Your task to perform on an android device: Search for seafood restaurants on Google Maps Image 0: 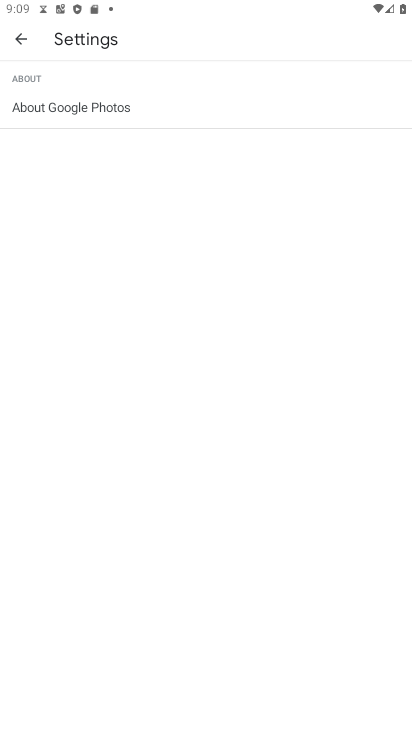
Step 0: press home button
Your task to perform on an android device: Search for seafood restaurants on Google Maps Image 1: 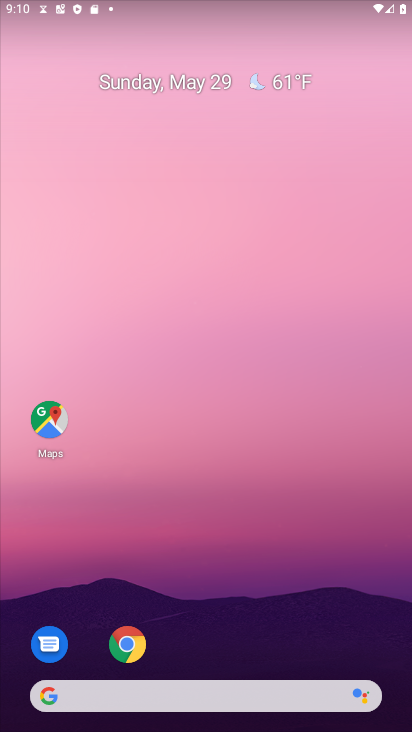
Step 1: click (53, 409)
Your task to perform on an android device: Search for seafood restaurants on Google Maps Image 2: 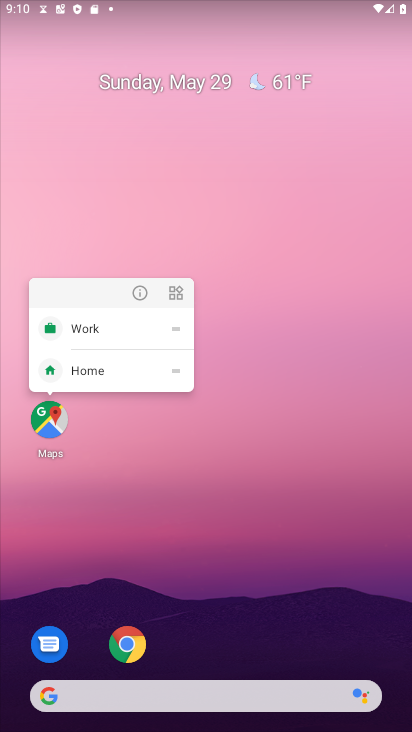
Step 2: click (42, 432)
Your task to perform on an android device: Search for seafood restaurants on Google Maps Image 3: 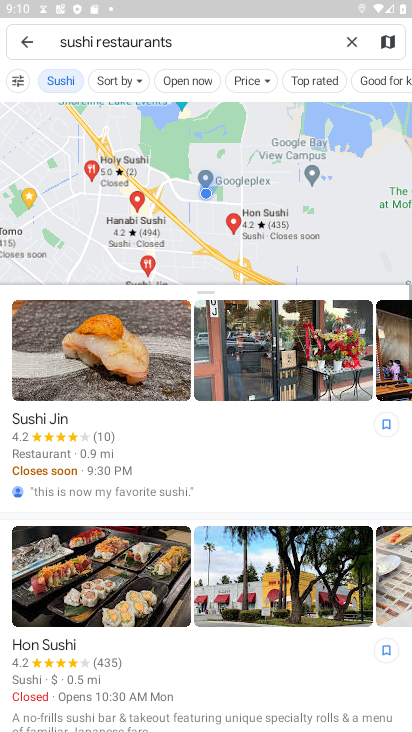
Step 3: click (350, 44)
Your task to perform on an android device: Search for seafood restaurants on Google Maps Image 4: 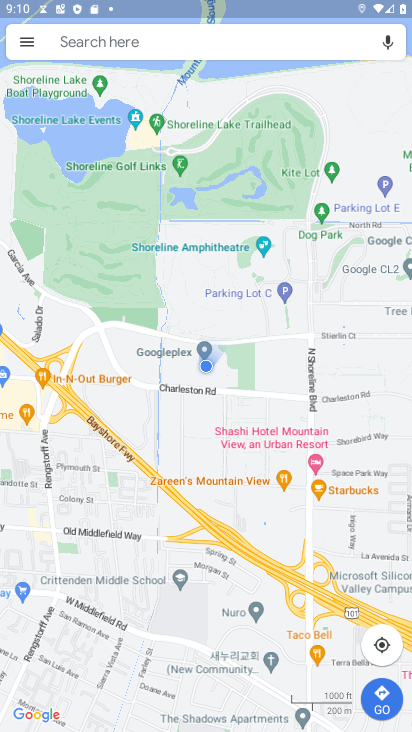
Step 4: click (190, 39)
Your task to perform on an android device: Search for seafood restaurants on Google Maps Image 5: 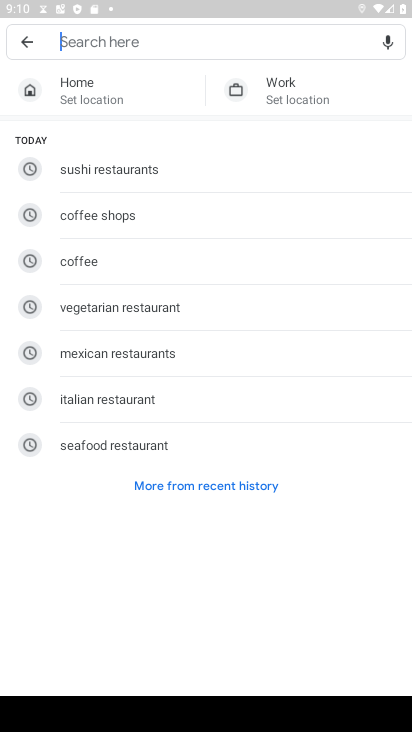
Step 5: click (126, 444)
Your task to perform on an android device: Search for seafood restaurants on Google Maps Image 6: 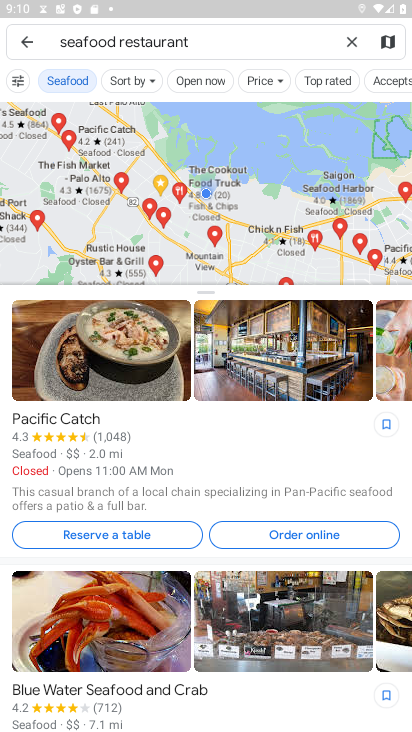
Step 6: task complete